Your task to perform on an android device: turn on bluetooth scan Image 0: 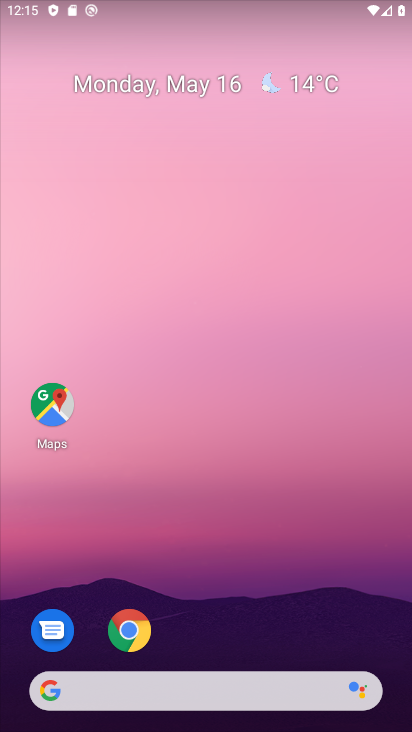
Step 0: drag from (314, 632) to (305, 11)
Your task to perform on an android device: turn on bluetooth scan Image 1: 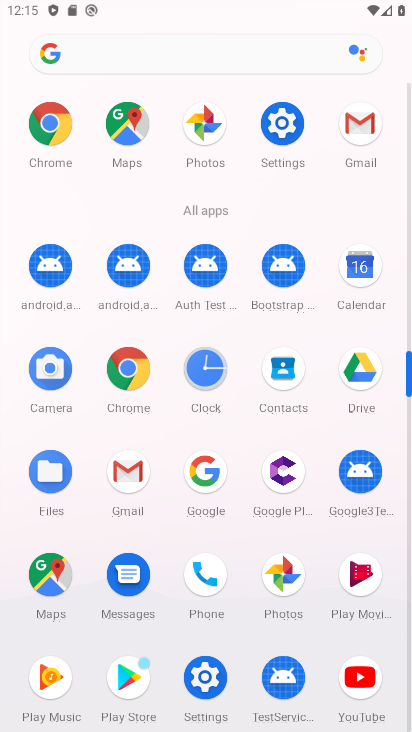
Step 1: click (212, 681)
Your task to perform on an android device: turn on bluetooth scan Image 2: 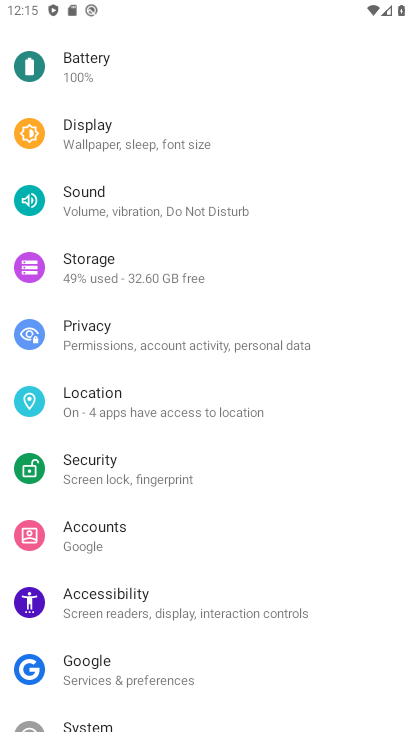
Step 2: drag from (324, 628) to (299, 446)
Your task to perform on an android device: turn on bluetooth scan Image 3: 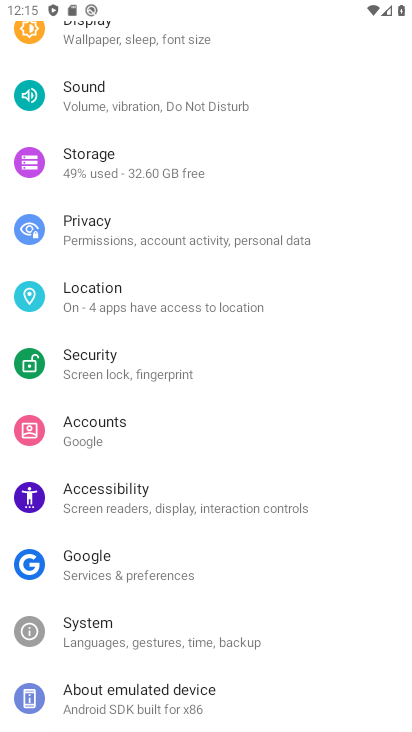
Step 3: click (257, 292)
Your task to perform on an android device: turn on bluetooth scan Image 4: 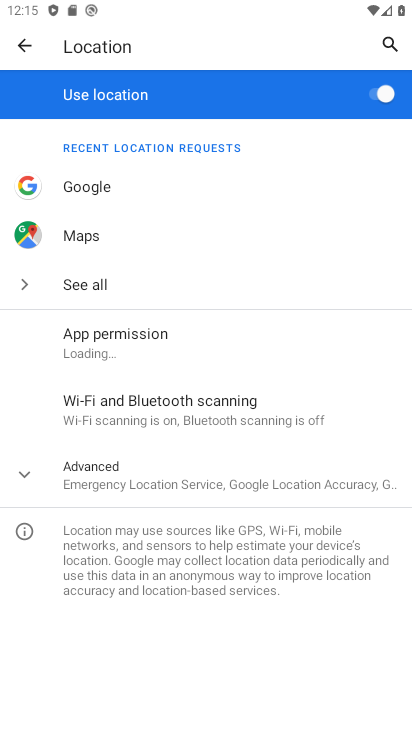
Step 4: click (196, 416)
Your task to perform on an android device: turn on bluetooth scan Image 5: 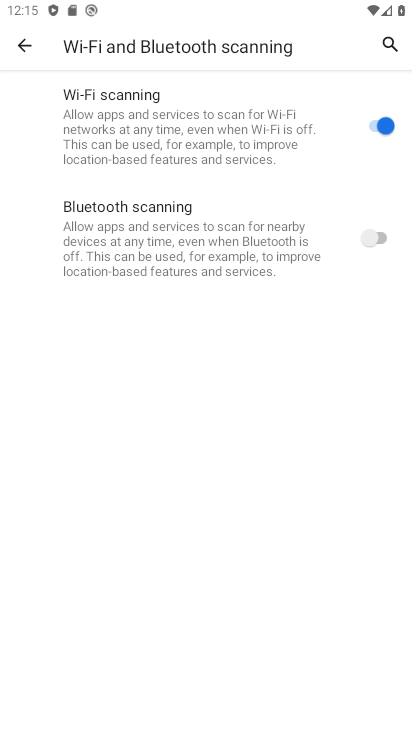
Step 5: click (374, 240)
Your task to perform on an android device: turn on bluetooth scan Image 6: 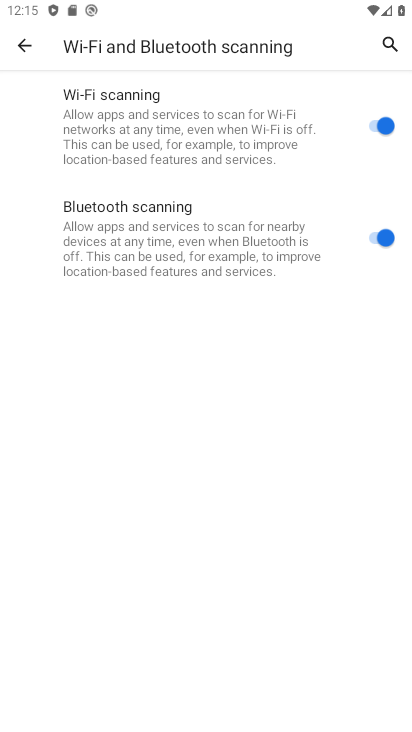
Step 6: task complete